Your task to perform on an android device: Open Google Maps Image 0: 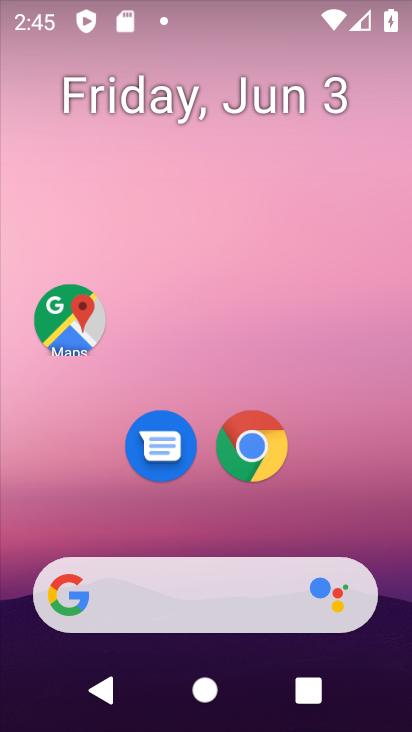
Step 0: click (94, 299)
Your task to perform on an android device: Open Google Maps Image 1: 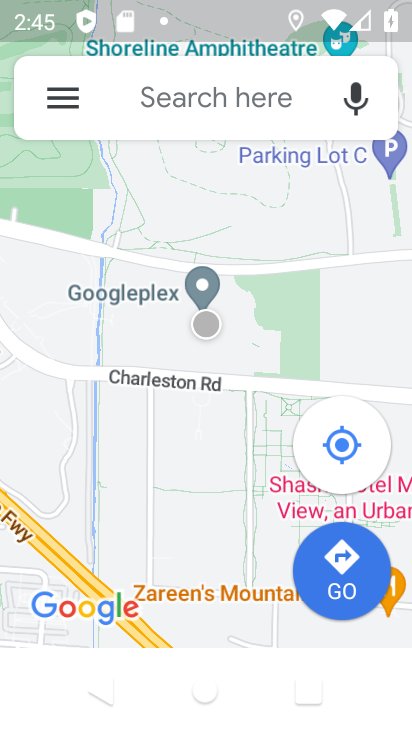
Step 1: task complete